Your task to perform on an android device: toggle notification dots Image 0: 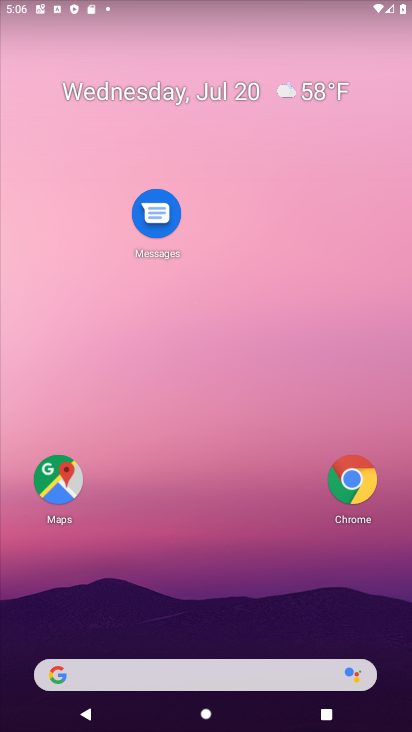
Step 0: drag from (176, 541) to (219, 200)
Your task to perform on an android device: toggle notification dots Image 1: 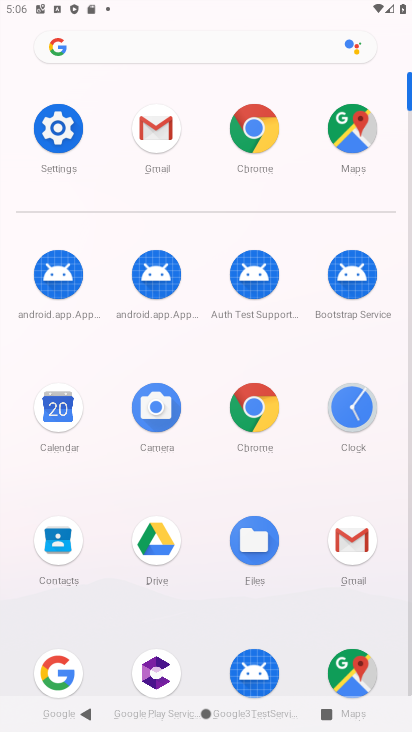
Step 1: click (47, 133)
Your task to perform on an android device: toggle notification dots Image 2: 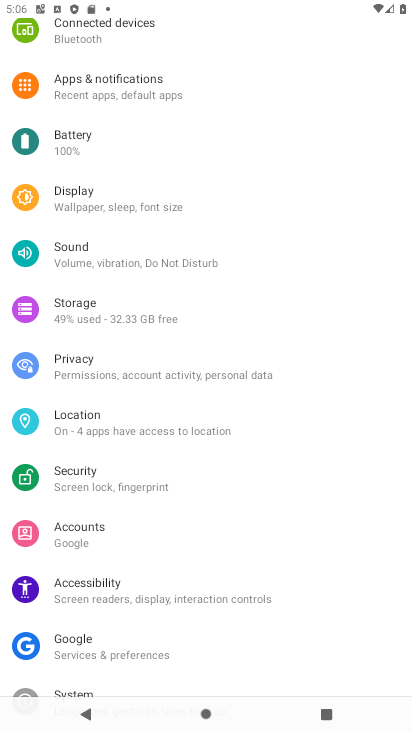
Step 2: click (83, 80)
Your task to perform on an android device: toggle notification dots Image 3: 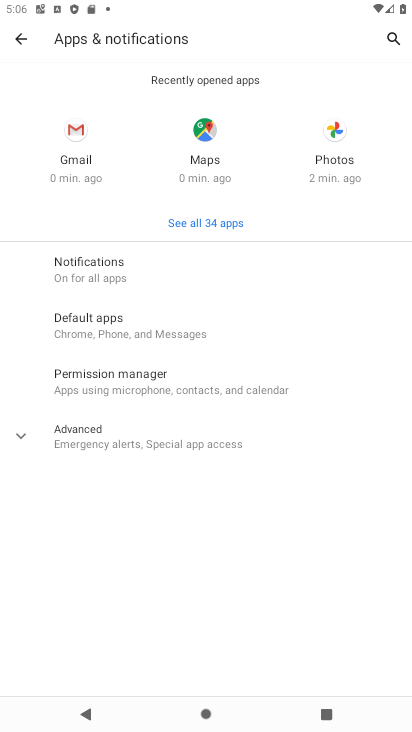
Step 3: click (71, 441)
Your task to perform on an android device: toggle notification dots Image 4: 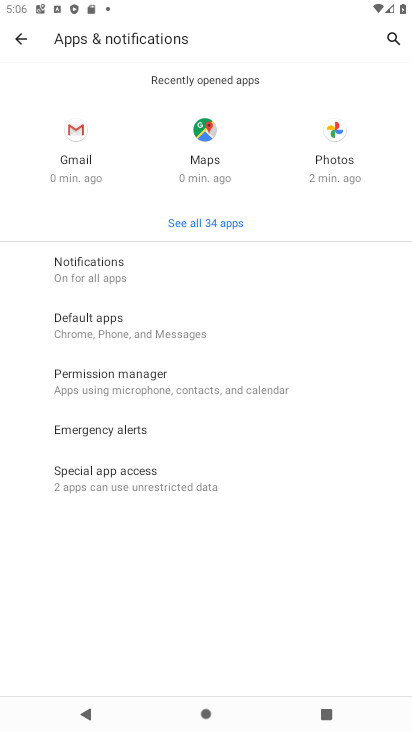
Step 4: click (93, 273)
Your task to perform on an android device: toggle notification dots Image 5: 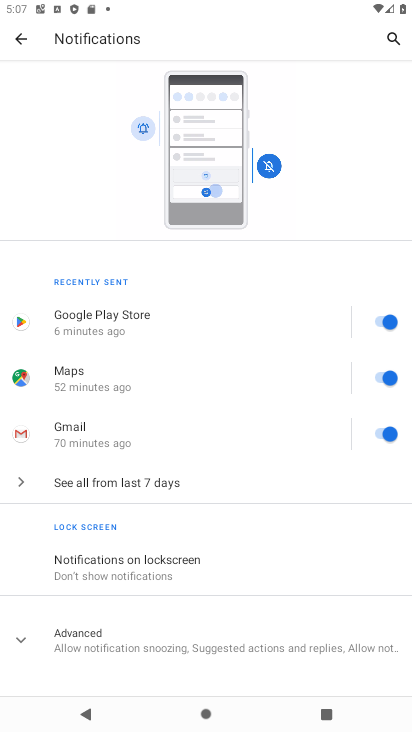
Step 5: click (91, 651)
Your task to perform on an android device: toggle notification dots Image 6: 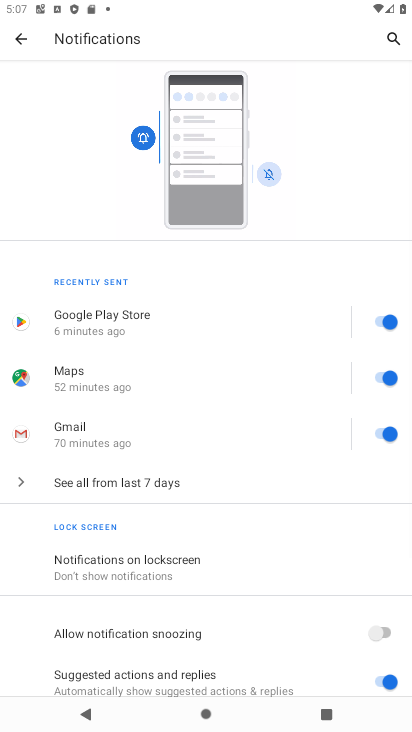
Step 6: drag from (130, 615) to (165, 449)
Your task to perform on an android device: toggle notification dots Image 7: 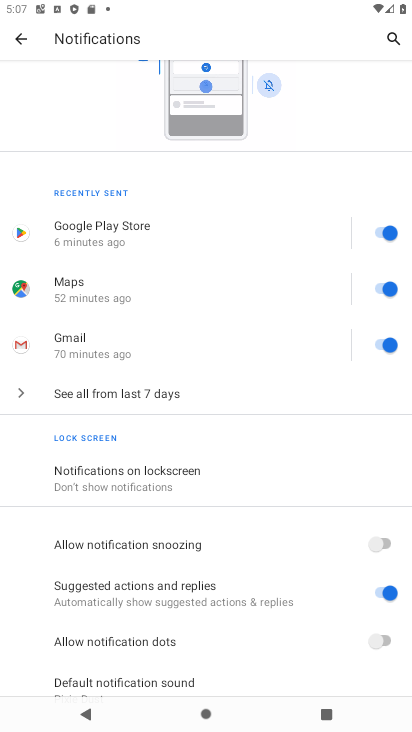
Step 7: click (384, 640)
Your task to perform on an android device: toggle notification dots Image 8: 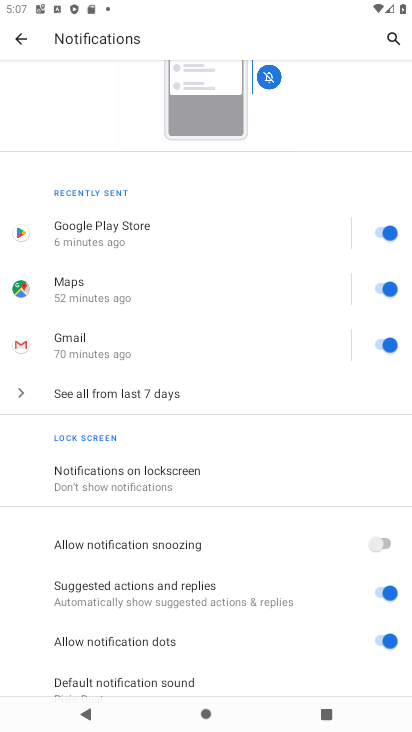
Step 8: task complete